Your task to perform on an android device: add a contact in the contacts app Image 0: 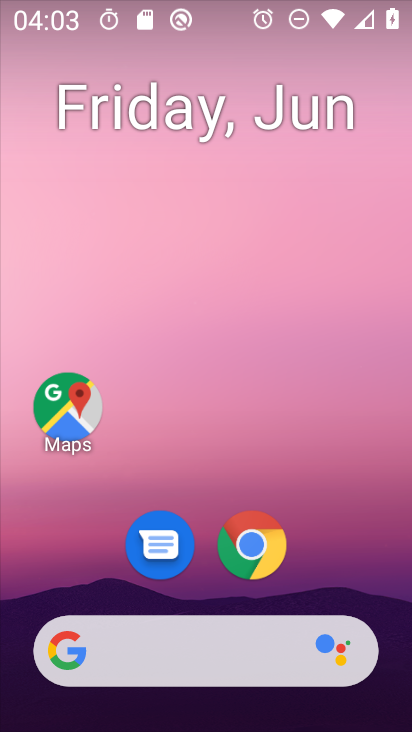
Step 0: drag from (320, 490) to (320, 8)
Your task to perform on an android device: add a contact in the contacts app Image 1: 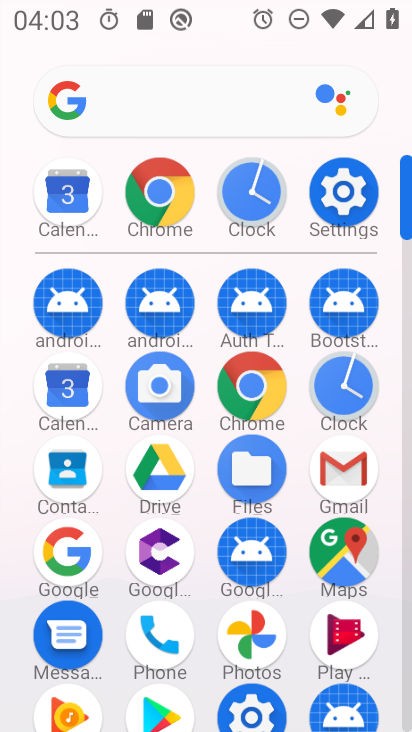
Step 1: click (74, 478)
Your task to perform on an android device: add a contact in the contacts app Image 2: 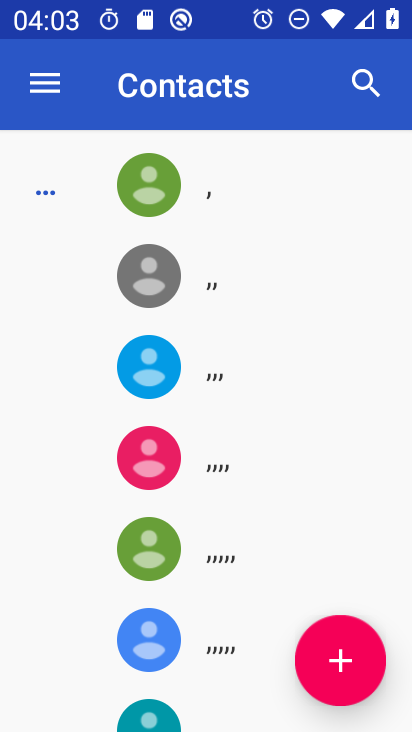
Step 2: click (337, 659)
Your task to perform on an android device: add a contact in the contacts app Image 3: 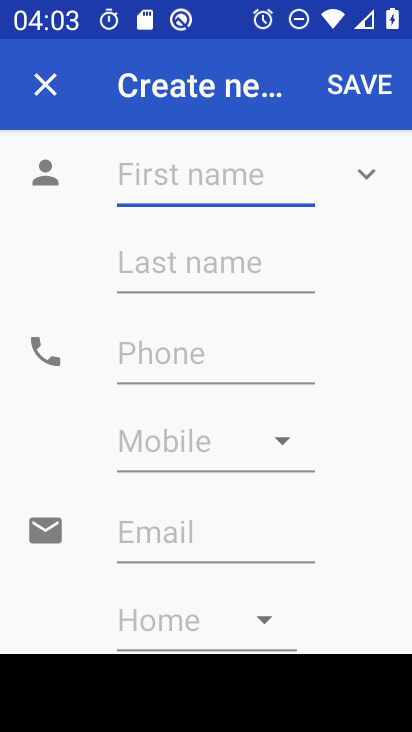
Step 3: type "nj"
Your task to perform on an android device: add a contact in the contacts app Image 4: 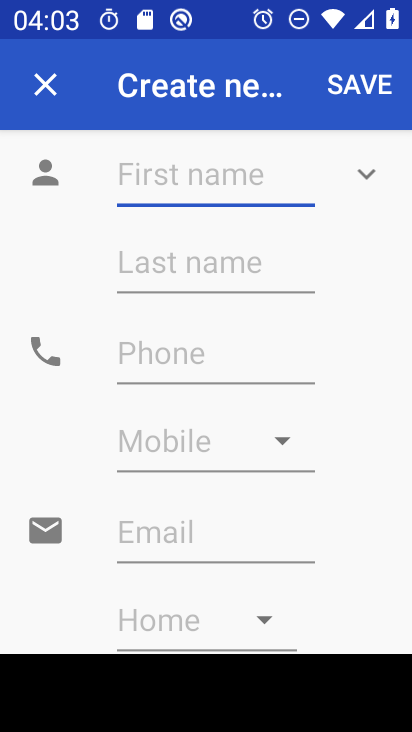
Step 4: click (148, 369)
Your task to perform on an android device: add a contact in the contacts app Image 5: 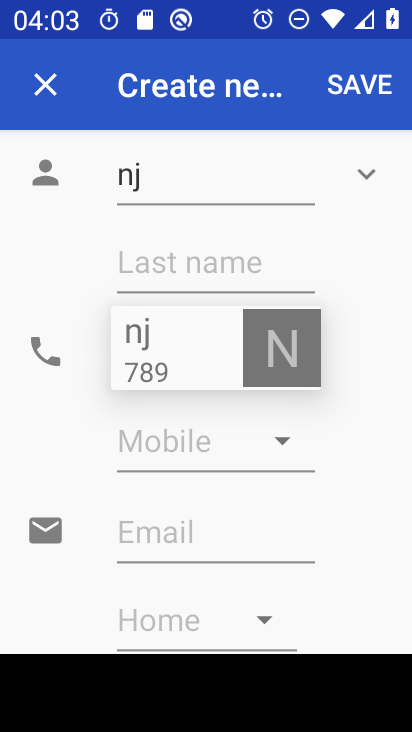
Step 5: type "98765789"
Your task to perform on an android device: add a contact in the contacts app Image 6: 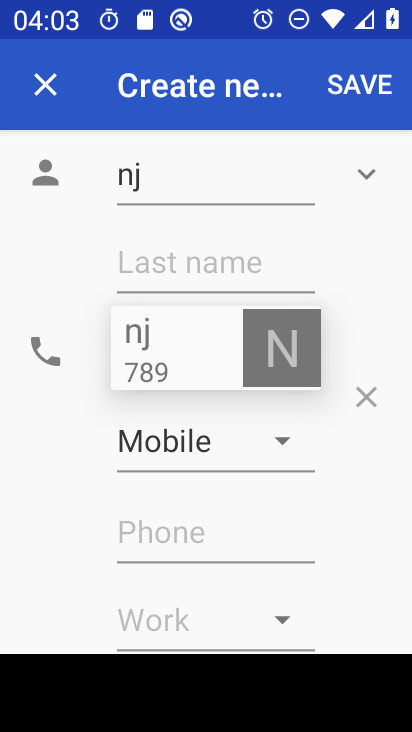
Step 6: click (360, 93)
Your task to perform on an android device: add a contact in the contacts app Image 7: 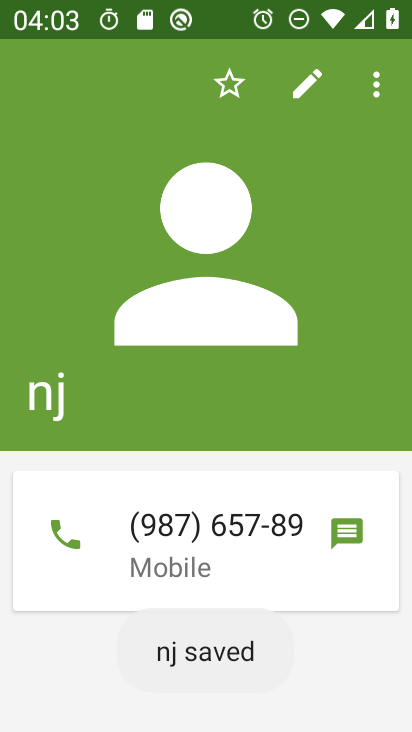
Step 7: task complete